Your task to perform on an android device: Open Chrome and go to settings Image 0: 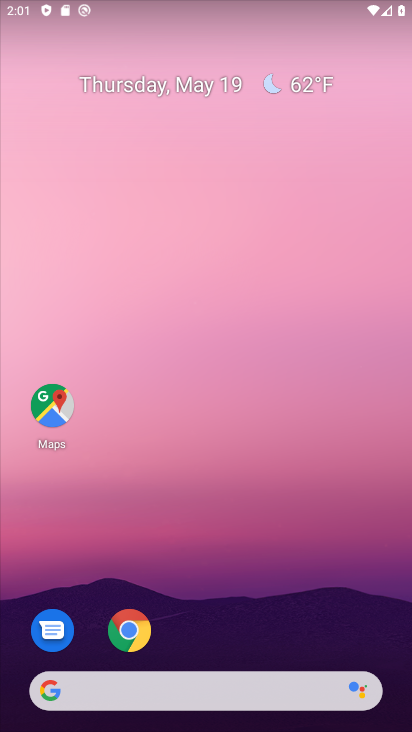
Step 0: drag from (350, 629) to (358, 97)
Your task to perform on an android device: Open Chrome and go to settings Image 1: 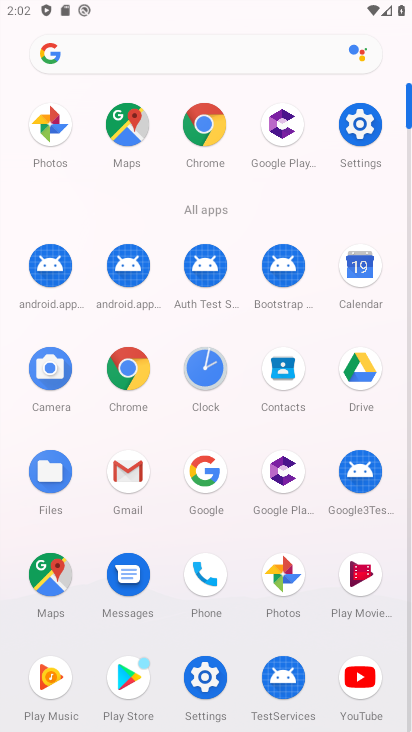
Step 1: click (355, 129)
Your task to perform on an android device: Open Chrome and go to settings Image 2: 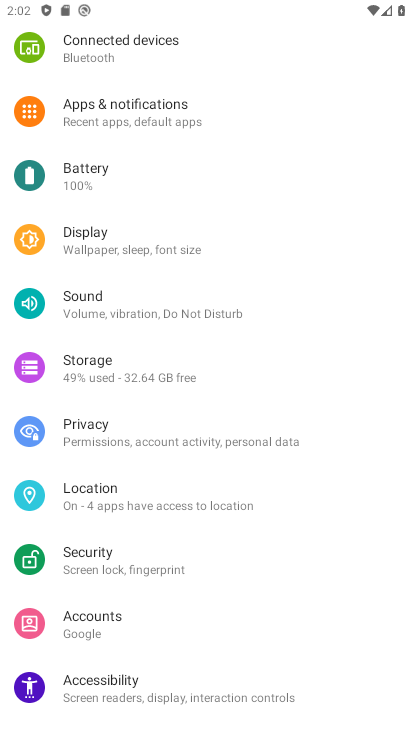
Step 2: drag from (273, 629) to (268, 236)
Your task to perform on an android device: Open Chrome and go to settings Image 3: 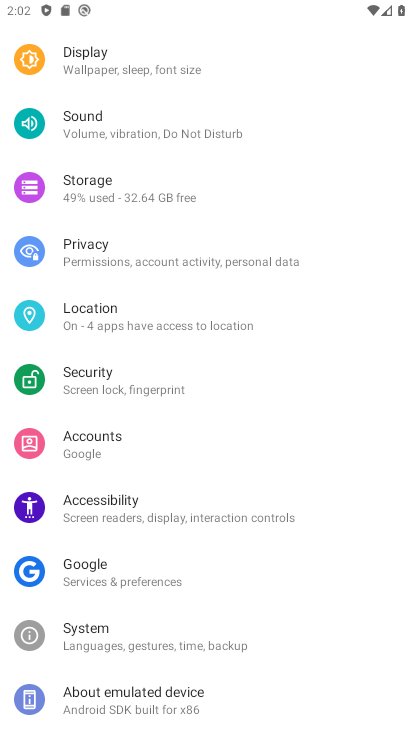
Step 3: press home button
Your task to perform on an android device: Open Chrome and go to settings Image 4: 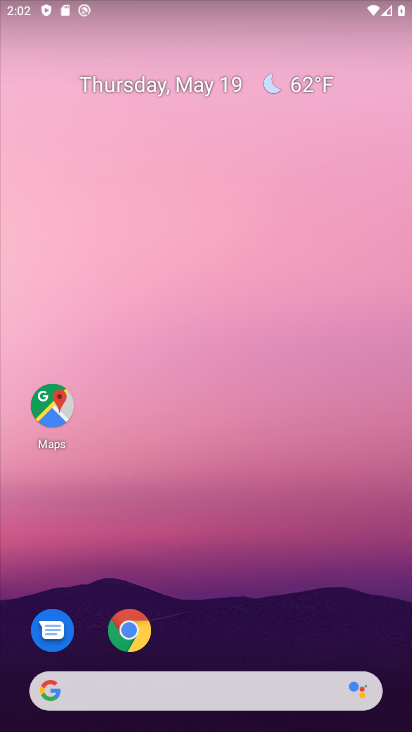
Step 4: drag from (368, 588) to (336, 147)
Your task to perform on an android device: Open Chrome and go to settings Image 5: 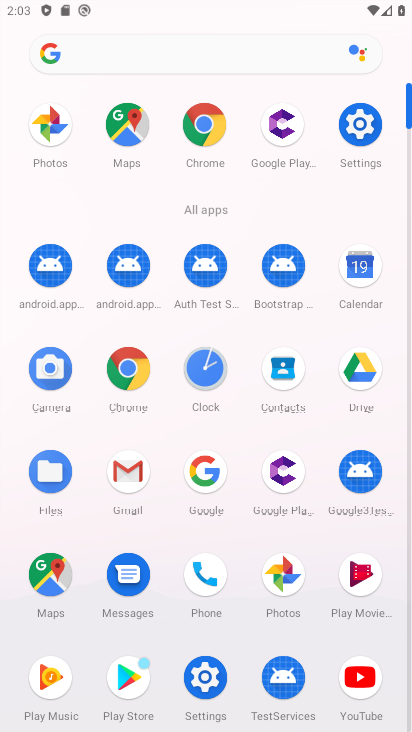
Step 5: click (133, 381)
Your task to perform on an android device: Open Chrome and go to settings Image 6: 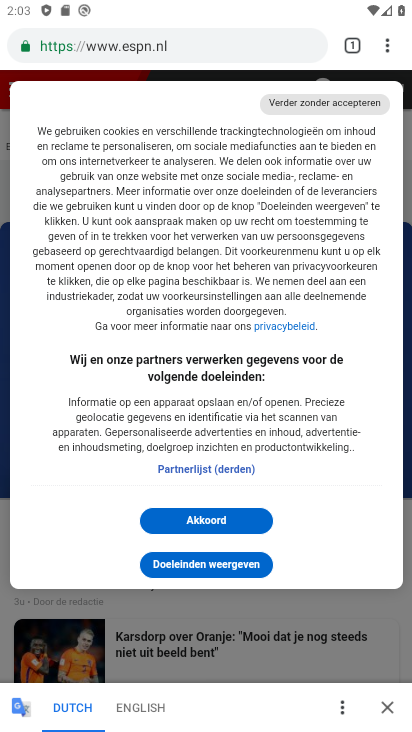
Step 6: task complete